Your task to perform on an android device: Show the shopping cart on bestbuy.com. Add "logitech g pro" to the cart on bestbuy.com, then select checkout. Image 0: 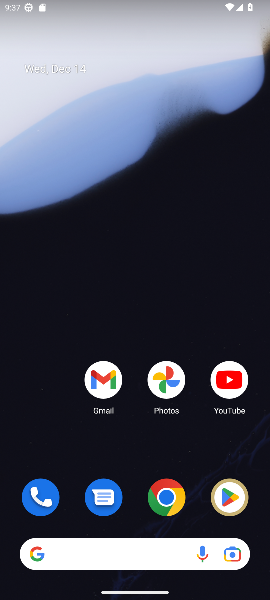
Step 0: click (170, 500)
Your task to perform on an android device: Show the shopping cart on bestbuy.com. Add "logitech g pro" to the cart on bestbuy.com, then select checkout. Image 1: 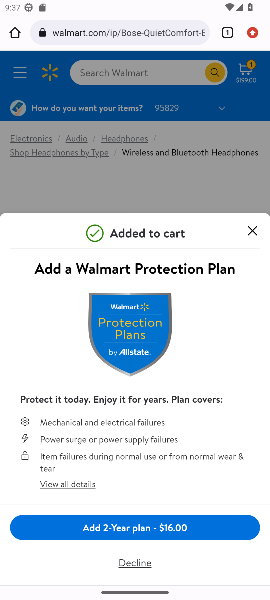
Step 1: click (92, 30)
Your task to perform on an android device: Show the shopping cart on bestbuy.com. Add "logitech g pro" to the cart on bestbuy.com, then select checkout. Image 2: 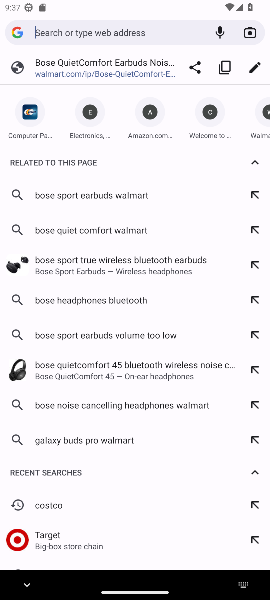
Step 2: type "bestbuy.com"
Your task to perform on an android device: Show the shopping cart on bestbuy.com. Add "logitech g pro" to the cart on bestbuy.com, then select checkout. Image 3: 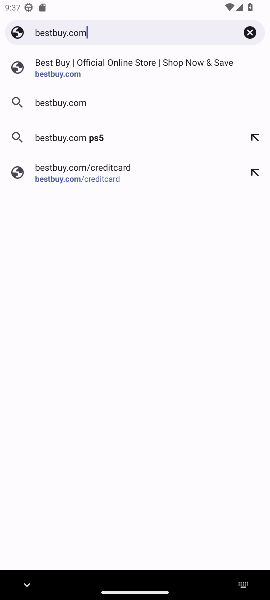
Step 3: press enter
Your task to perform on an android device: Show the shopping cart on bestbuy.com. Add "logitech g pro" to the cart on bestbuy.com, then select checkout. Image 4: 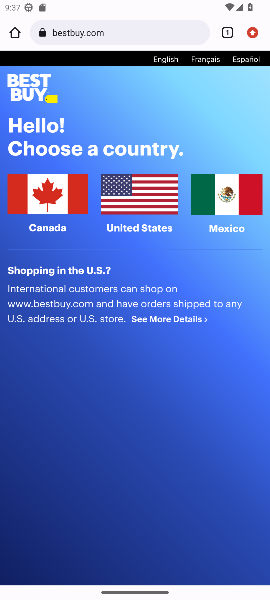
Step 4: click (131, 197)
Your task to perform on an android device: Show the shopping cart on bestbuy.com. Add "logitech g pro" to the cart on bestbuy.com, then select checkout. Image 5: 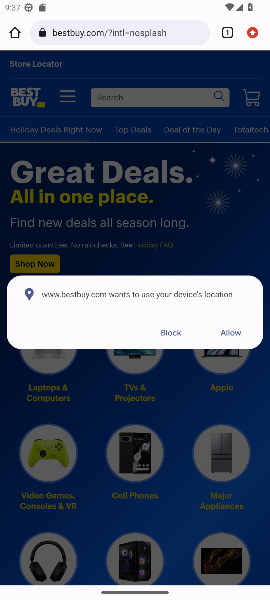
Step 5: click (225, 335)
Your task to perform on an android device: Show the shopping cart on bestbuy.com. Add "logitech g pro" to the cart on bestbuy.com, then select checkout. Image 6: 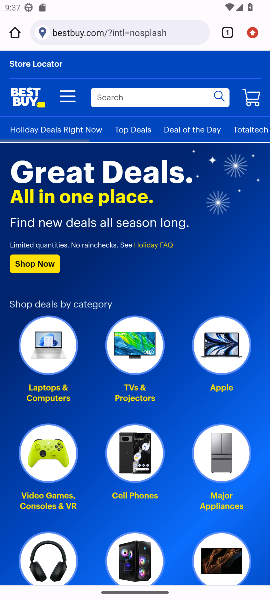
Step 6: click (254, 102)
Your task to perform on an android device: Show the shopping cart on bestbuy.com. Add "logitech g pro" to the cart on bestbuy.com, then select checkout. Image 7: 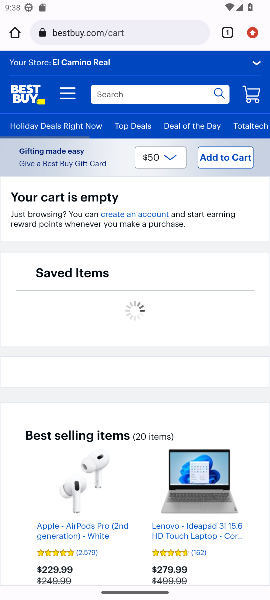
Step 7: type ""
Your task to perform on an android device: Show the shopping cart on bestbuy.com. Add "logitech g pro" to the cart on bestbuy.com, then select checkout. Image 8: 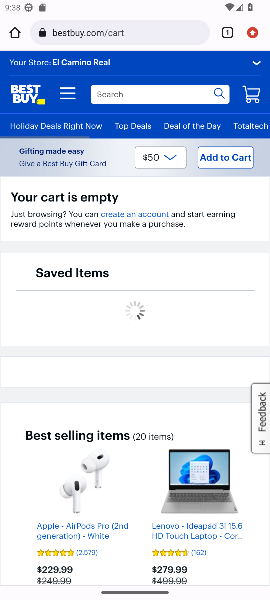
Step 8: type "logitech g pro"
Your task to perform on an android device: Show the shopping cart on bestbuy.com. Add "logitech g pro" to the cart on bestbuy.com, then select checkout. Image 9: 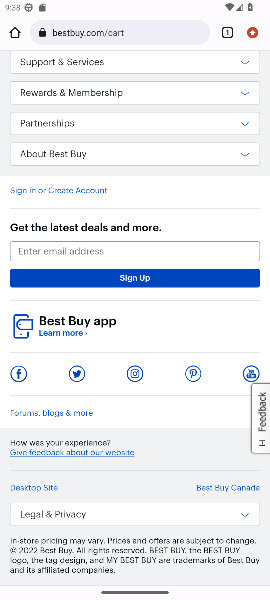
Step 9: drag from (191, 171) to (202, 557)
Your task to perform on an android device: Show the shopping cart on bestbuy.com. Add "logitech g pro" to the cart on bestbuy.com, then select checkout. Image 10: 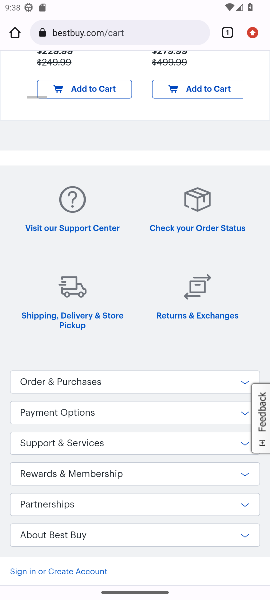
Step 10: drag from (120, 149) to (114, 566)
Your task to perform on an android device: Show the shopping cart on bestbuy.com. Add "logitech g pro" to the cart on bestbuy.com, then select checkout. Image 11: 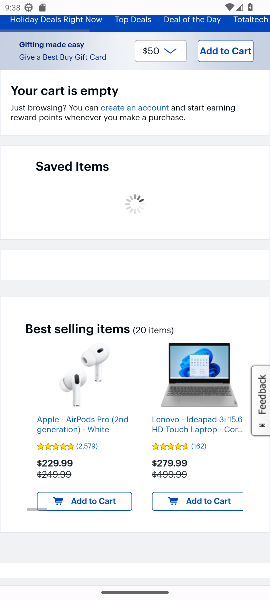
Step 11: drag from (184, 165) to (146, 576)
Your task to perform on an android device: Show the shopping cart on bestbuy.com. Add "logitech g pro" to the cart on bestbuy.com, then select checkout. Image 12: 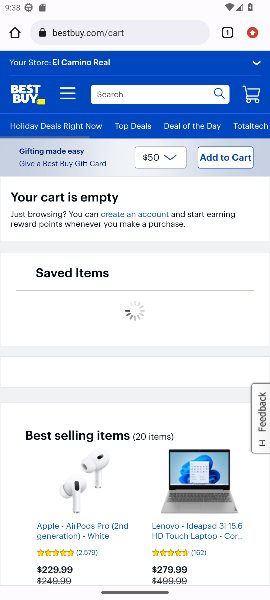
Step 12: click (130, 99)
Your task to perform on an android device: Show the shopping cart on bestbuy.com. Add "logitech g pro" to the cart on bestbuy.com, then select checkout. Image 13: 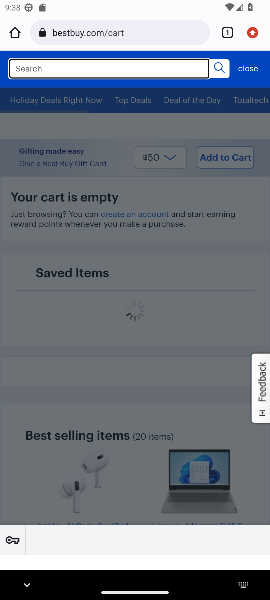
Step 13: click (70, 66)
Your task to perform on an android device: Show the shopping cart on bestbuy.com. Add "logitech g pro" to the cart on bestbuy.com, then select checkout. Image 14: 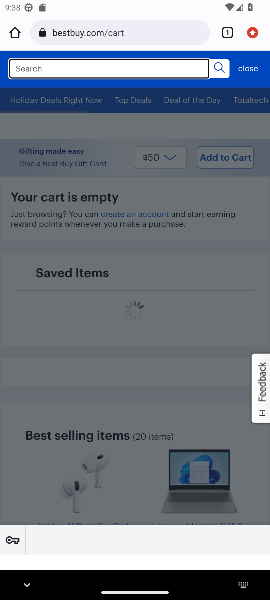
Step 14: click (70, 66)
Your task to perform on an android device: Show the shopping cart on bestbuy.com. Add "logitech g pro" to the cart on bestbuy.com, then select checkout. Image 15: 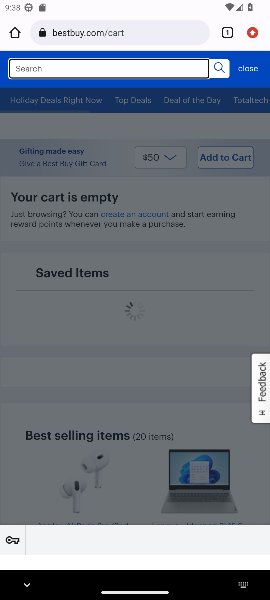
Step 15: type "logitech g pro"
Your task to perform on an android device: Show the shopping cart on bestbuy.com. Add "logitech g pro" to the cart on bestbuy.com, then select checkout. Image 16: 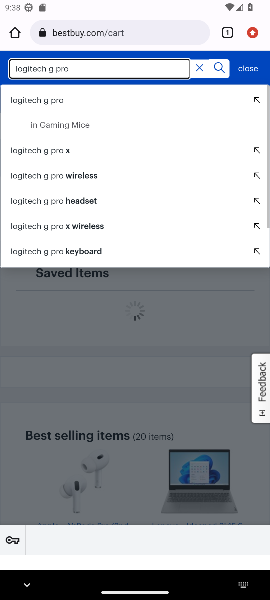
Step 16: click (220, 72)
Your task to perform on an android device: Show the shopping cart on bestbuy.com. Add "logitech g pro" to the cart on bestbuy.com, then select checkout. Image 17: 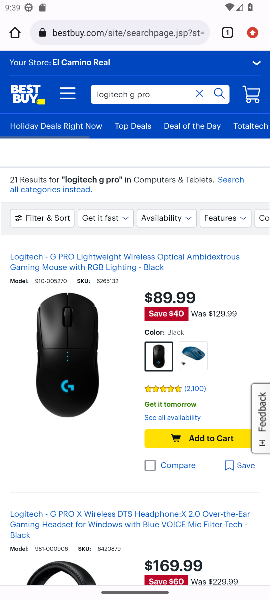
Step 17: click (192, 436)
Your task to perform on an android device: Show the shopping cart on bestbuy.com. Add "logitech g pro" to the cart on bestbuy.com, then select checkout. Image 18: 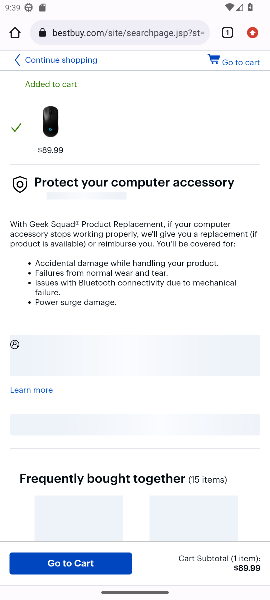
Step 18: click (48, 563)
Your task to perform on an android device: Show the shopping cart on bestbuy.com. Add "logitech g pro" to the cart on bestbuy.com, then select checkout. Image 19: 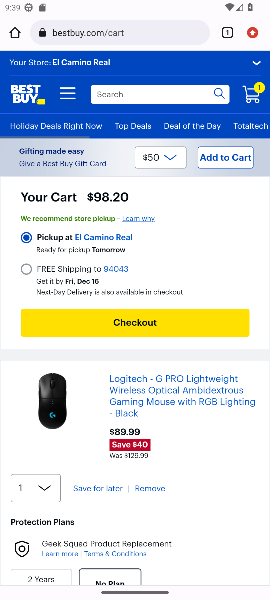
Step 19: click (106, 322)
Your task to perform on an android device: Show the shopping cart on bestbuy.com. Add "logitech g pro" to the cart on bestbuy.com, then select checkout. Image 20: 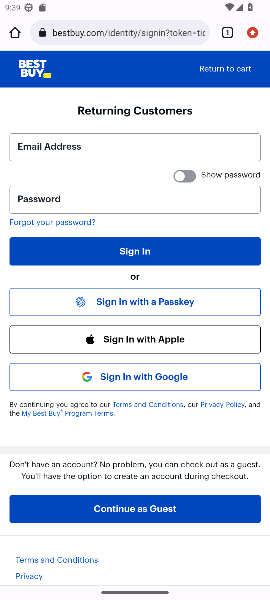
Step 20: task complete